Your task to perform on an android device: When is my next meeting? Image 0: 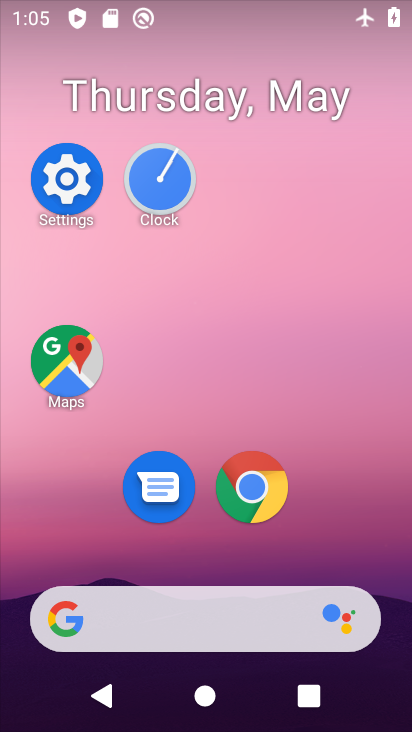
Step 0: drag from (249, 569) to (307, 134)
Your task to perform on an android device: When is my next meeting? Image 1: 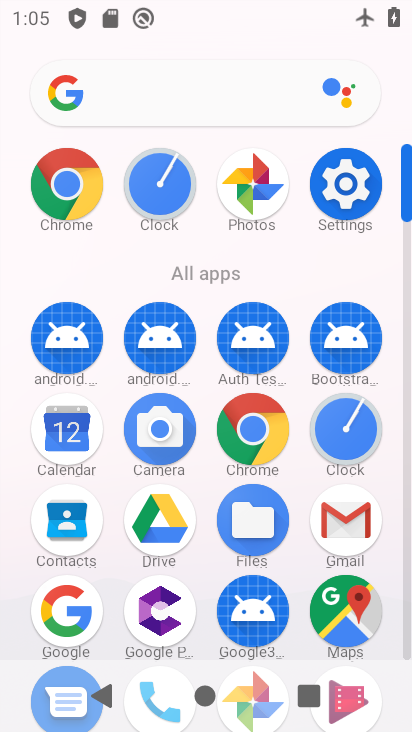
Step 1: drag from (63, 435) to (230, 206)
Your task to perform on an android device: When is my next meeting? Image 2: 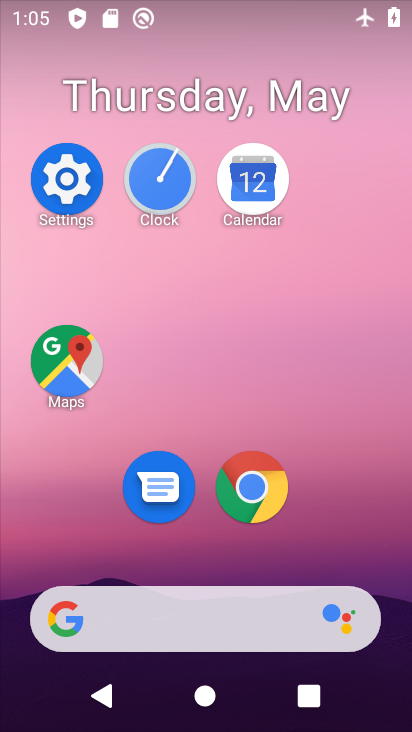
Step 2: click (233, 208)
Your task to perform on an android device: When is my next meeting? Image 3: 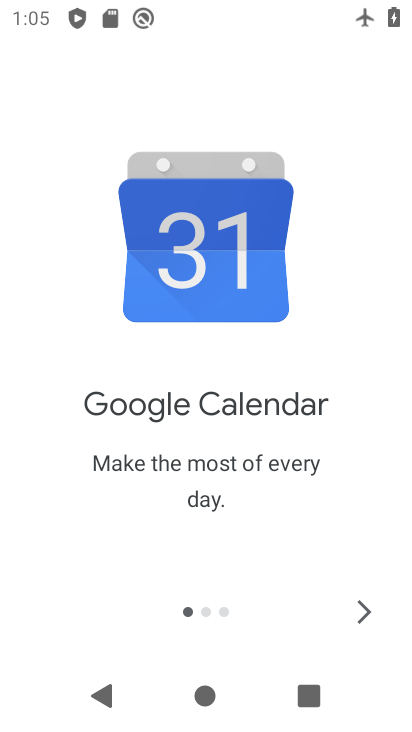
Step 3: click (358, 628)
Your task to perform on an android device: When is my next meeting? Image 4: 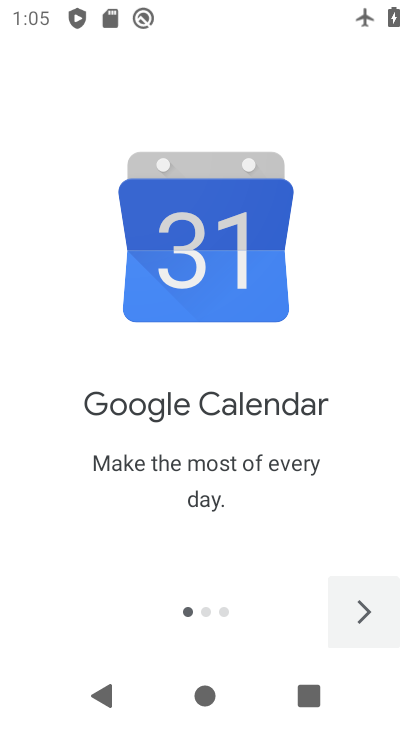
Step 4: click (358, 628)
Your task to perform on an android device: When is my next meeting? Image 5: 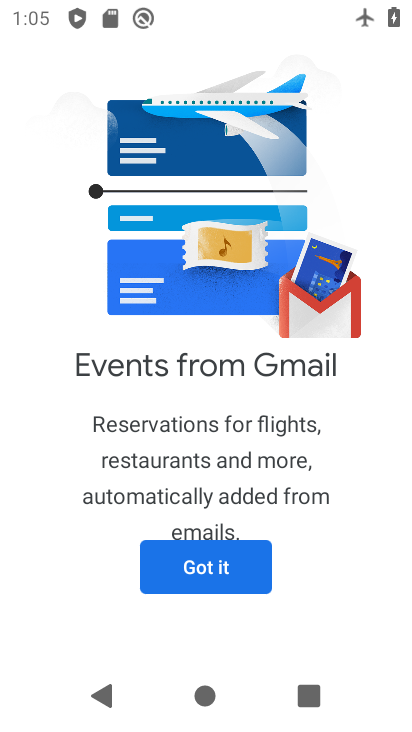
Step 5: click (171, 569)
Your task to perform on an android device: When is my next meeting? Image 6: 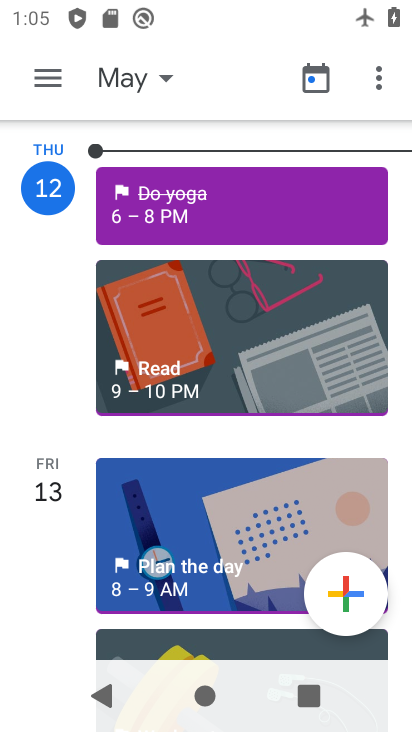
Step 6: click (58, 472)
Your task to perform on an android device: When is my next meeting? Image 7: 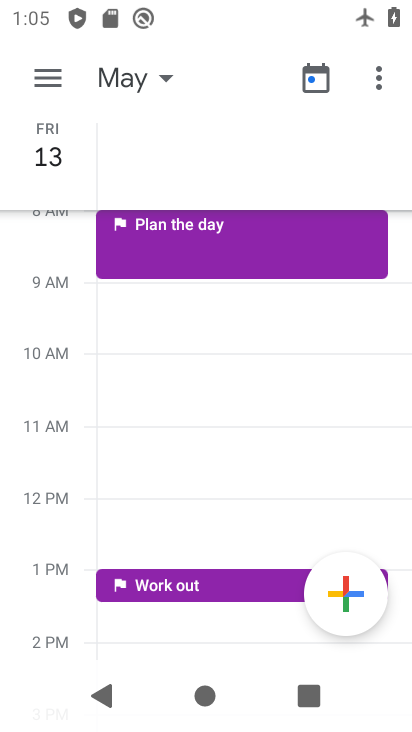
Step 7: task complete